Your task to perform on an android device: change notifications settings Image 0: 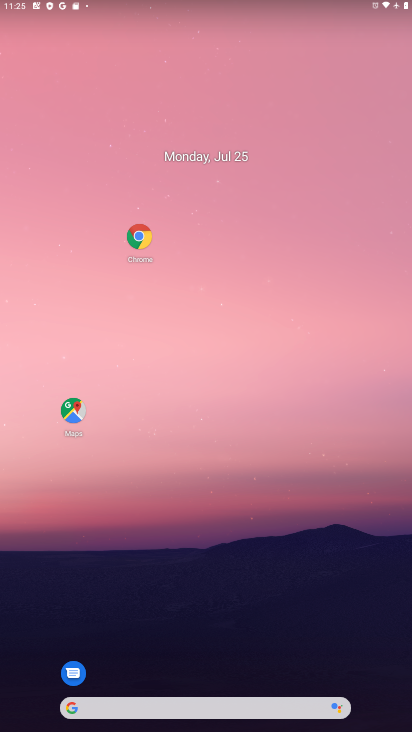
Step 0: drag from (297, 650) to (275, 330)
Your task to perform on an android device: change notifications settings Image 1: 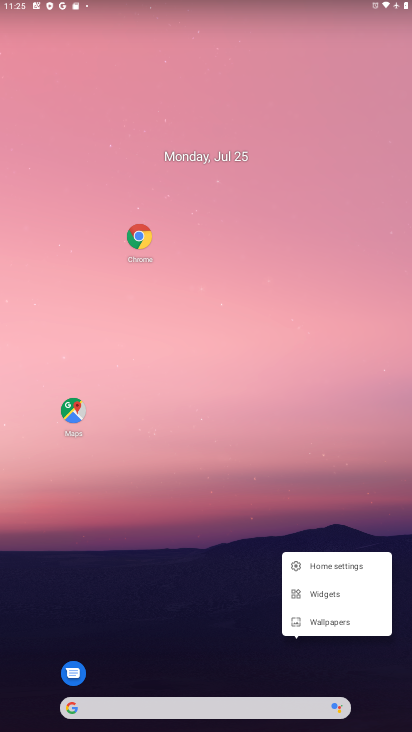
Step 1: click (275, 330)
Your task to perform on an android device: change notifications settings Image 2: 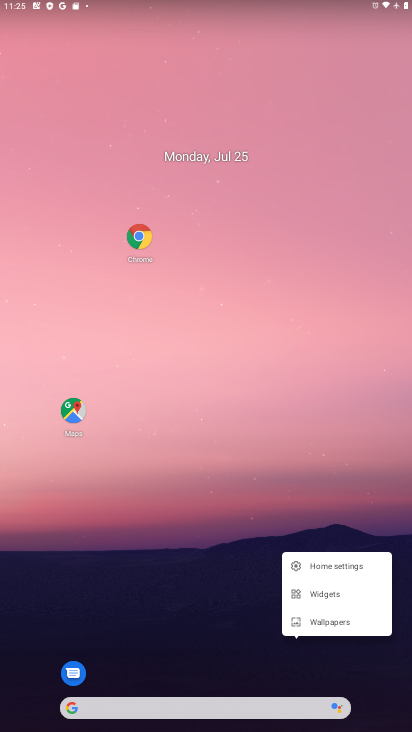
Step 2: click (275, 330)
Your task to perform on an android device: change notifications settings Image 3: 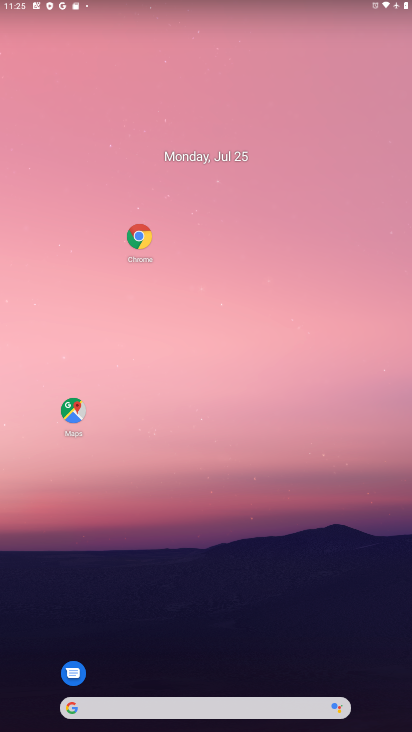
Step 3: drag from (228, 687) to (302, 110)
Your task to perform on an android device: change notifications settings Image 4: 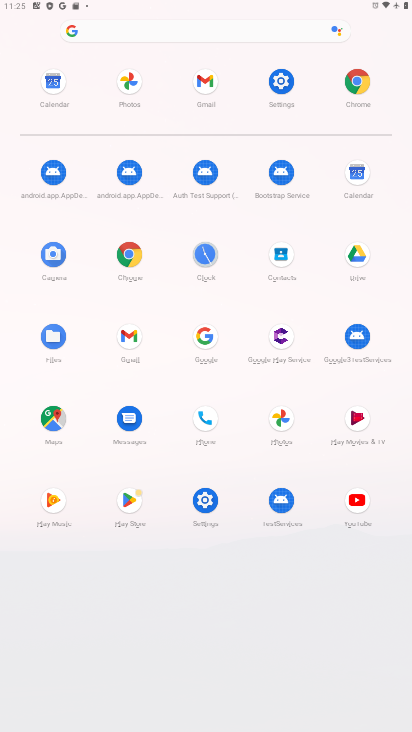
Step 4: click (302, 110)
Your task to perform on an android device: change notifications settings Image 5: 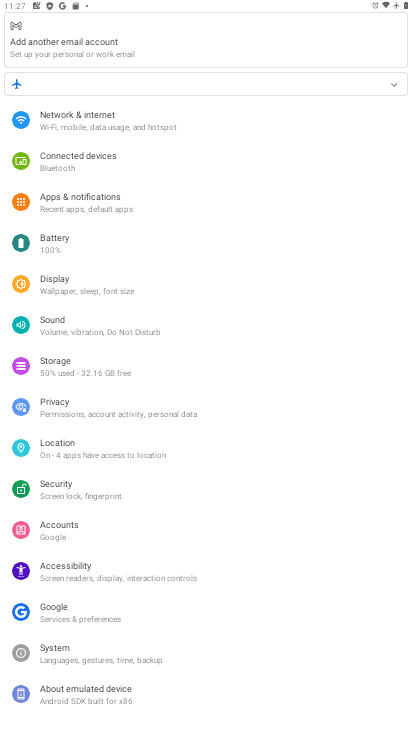
Step 5: click (93, 209)
Your task to perform on an android device: change notifications settings Image 6: 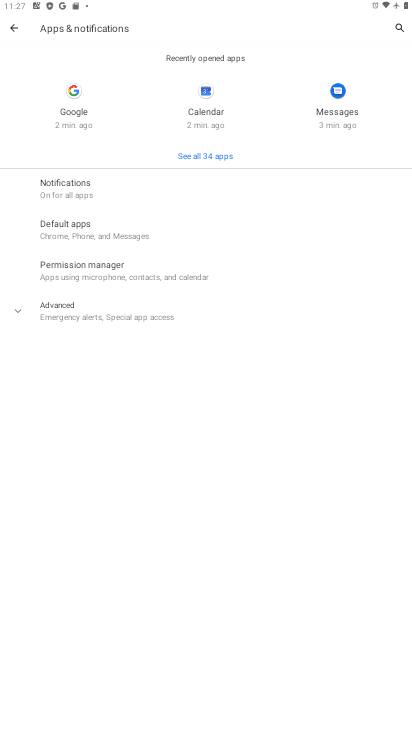
Step 6: task complete